Your task to perform on an android device: turn off picture-in-picture Image 0: 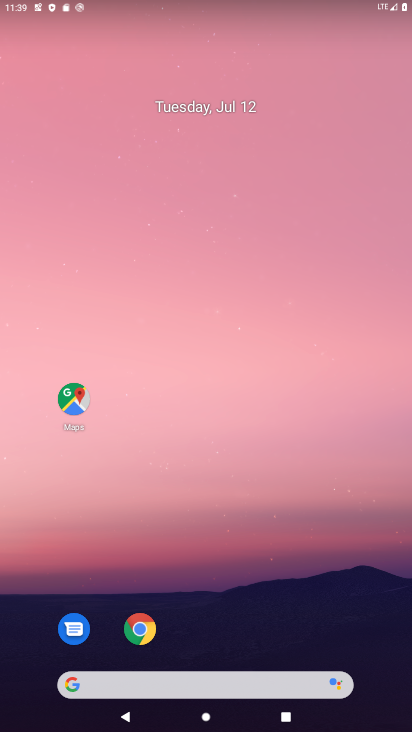
Step 0: drag from (220, 651) to (240, 166)
Your task to perform on an android device: turn off picture-in-picture Image 1: 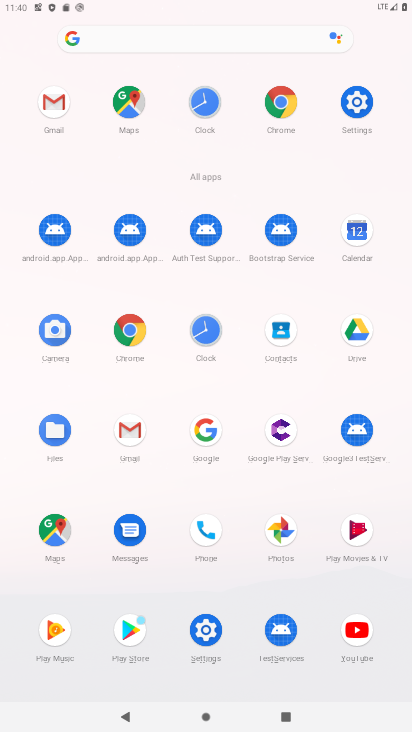
Step 1: press home button
Your task to perform on an android device: turn off picture-in-picture Image 2: 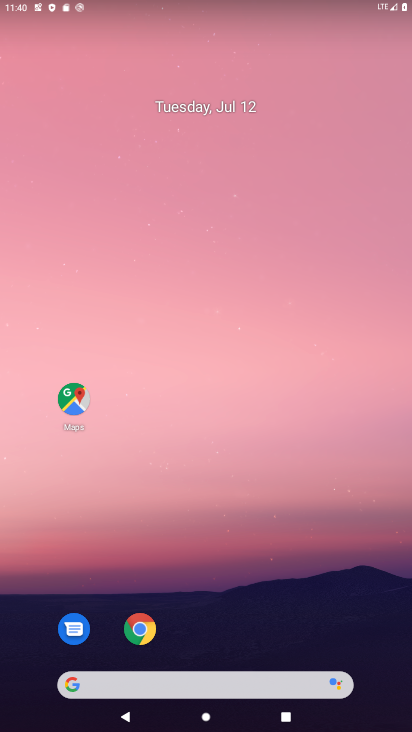
Step 2: click (141, 627)
Your task to perform on an android device: turn off picture-in-picture Image 3: 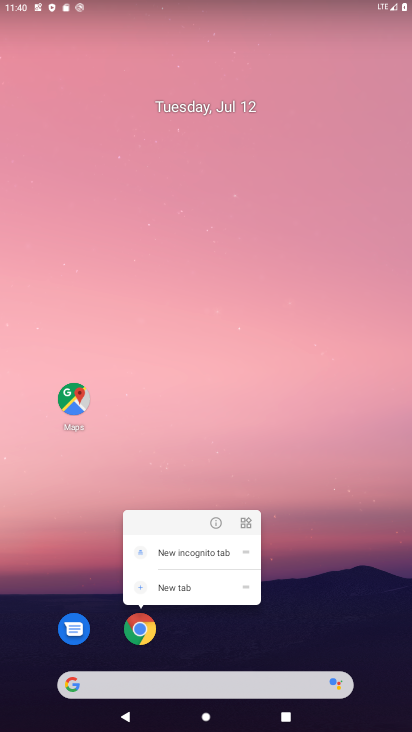
Step 3: click (212, 519)
Your task to perform on an android device: turn off picture-in-picture Image 4: 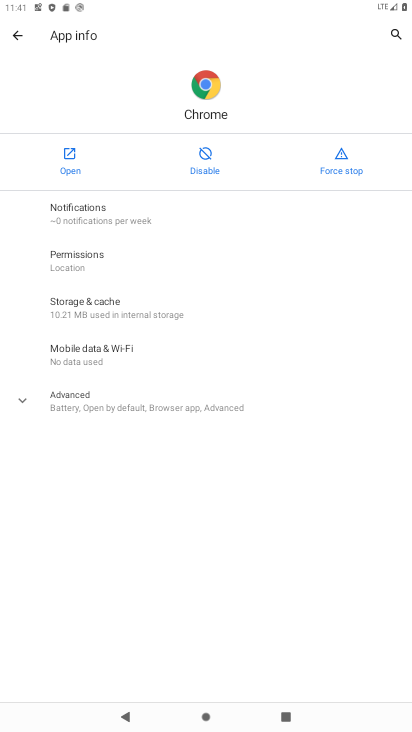
Step 4: click (40, 400)
Your task to perform on an android device: turn off picture-in-picture Image 5: 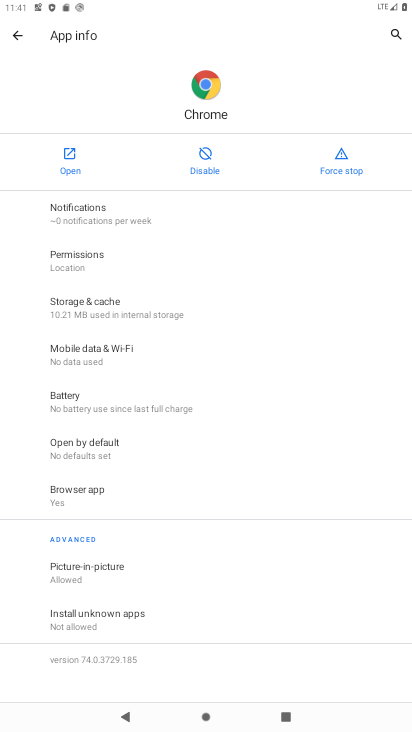
Step 5: click (95, 573)
Your task to perform on an android device: turn off picture-in-picture Image 6: 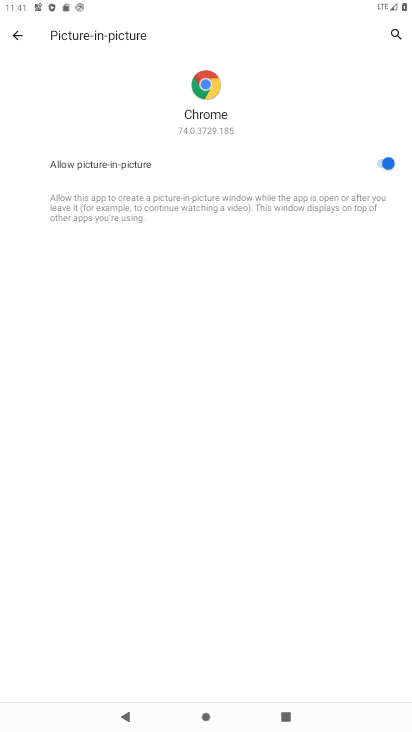
Step 6: click (384, 166)
Your task to perform on an android device: turn off picture-in-picture Image 7: 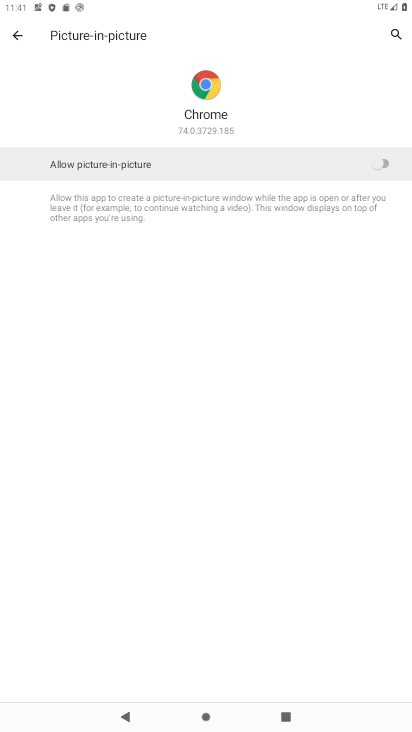
Step 7: task complete